Your task to perform on an android device: change notification settings in the gmail app Image 0: 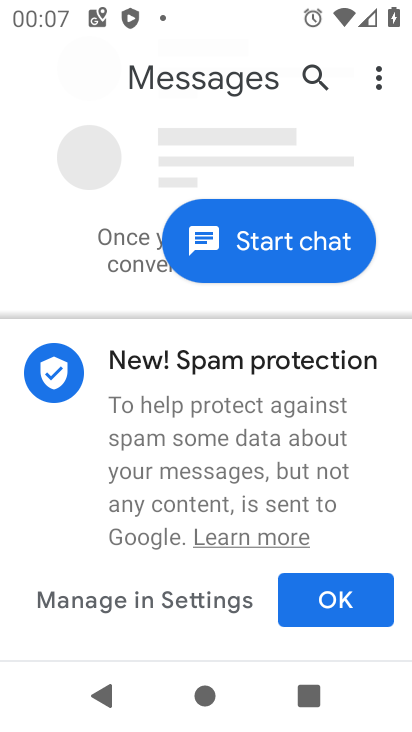
Step 0: press home button
Your task to perform on an android device: change notification settings in the gmail app Image 1: 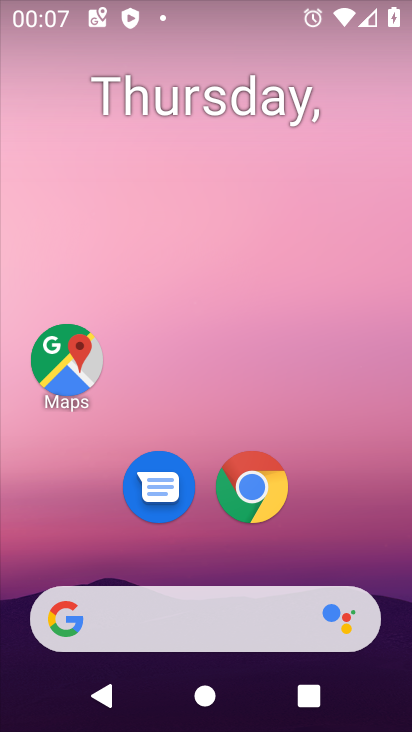
Step 1: drag from (372, 567) to (401, 251)
Your task to perform on an android device: change notification settings in the gmail app Image 2: 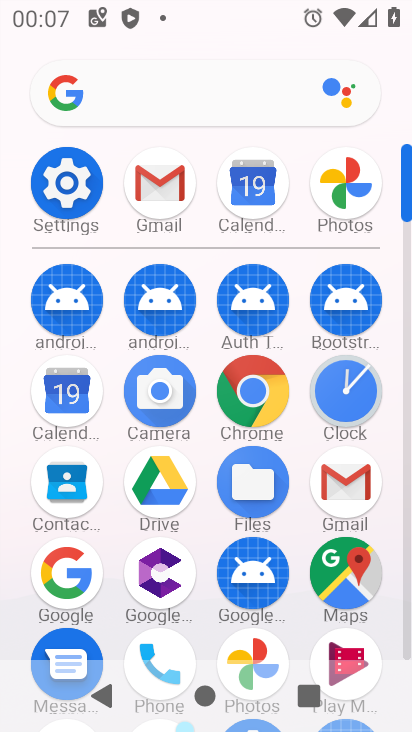
Step 2: click (151, 192)
Your task to perform on an android device: change notification settings in the gmail app Image 3: 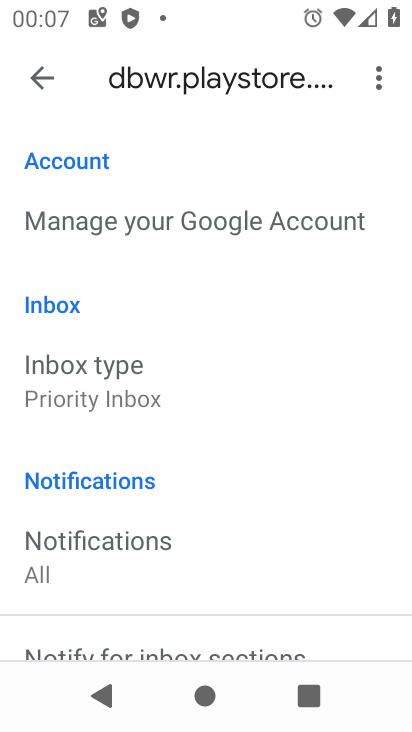
Step 3: click (32, 87)
Your task to perform on an android device: change notification settings in the gmail app Image 4: 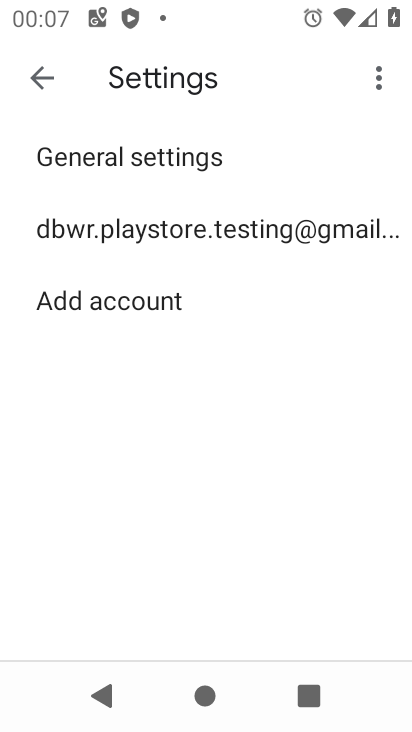
Step 4: click (108, 161)
Your task to perform on an android device: change notification settings in the gmail app Image 5: 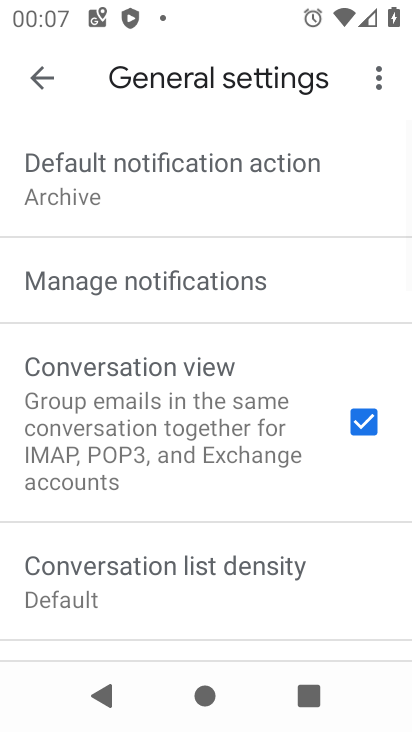
Step 5: click (119, 299)
Your task to perform on an android device: change notification settings in the gmail app Image 6: 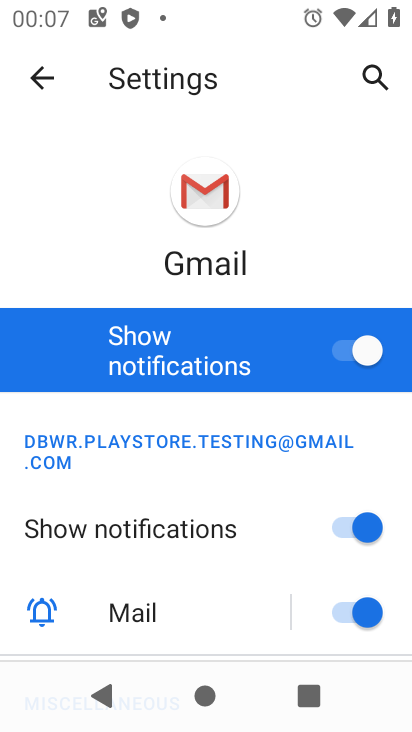
Step 6: click (379, 355)
Your task to perform on an android device: change notification settings in the gmail app Image 7: 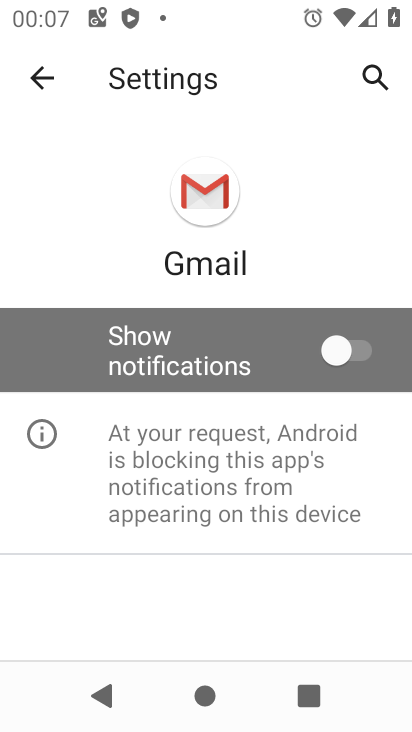
Step 7: task complete